Your task to perform on an android device: What's the weather? Image 0: 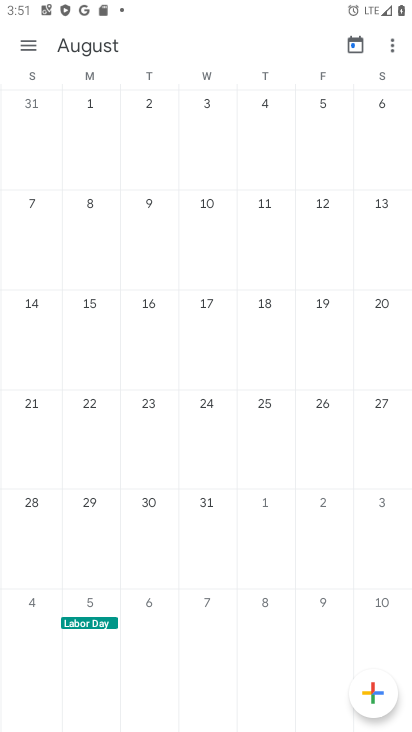
Step 0: press home button
Your task to perform on an android device: What's the weather? Image 1: 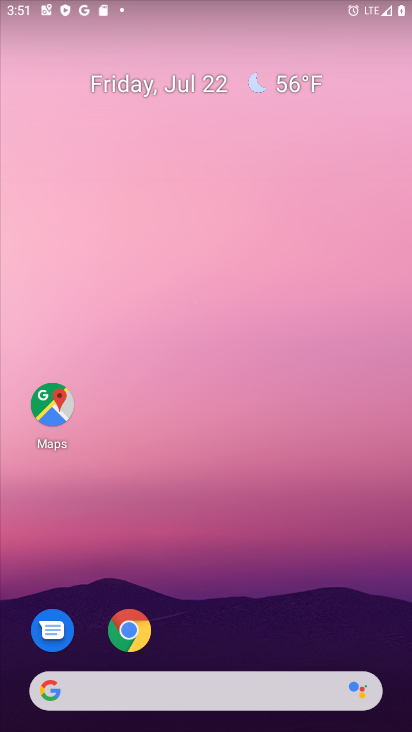
Step 1: click (287, 92)
Your task to perform on an android device: What's the weather? Image 2: 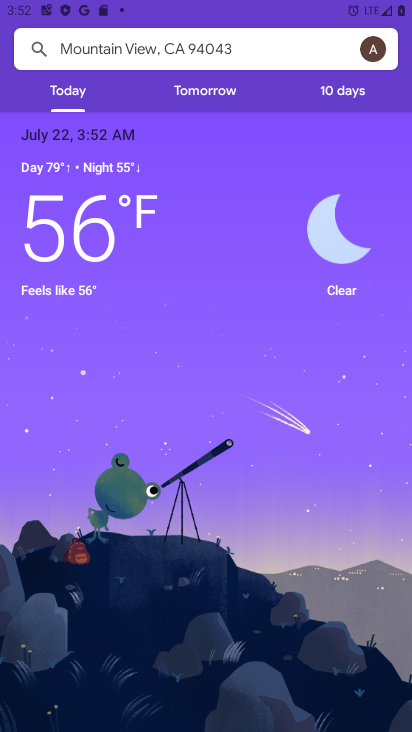
Step 2: task complete